Your task to perform on an android device: open app "Spotify" Image 0: 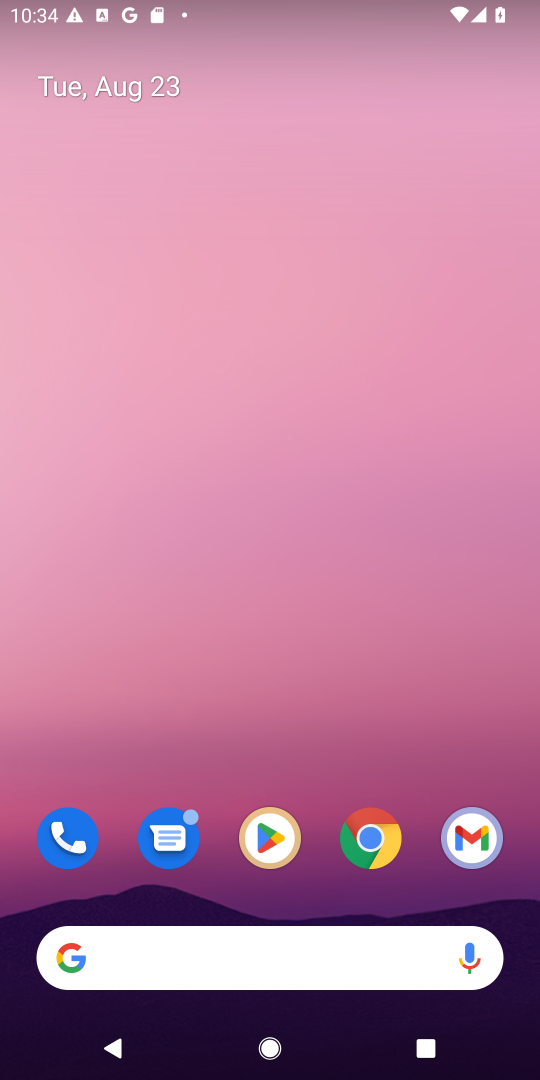
Step 0: click (279, 832)
Your task to perform on an android device: open app "Spotify" Image 1: 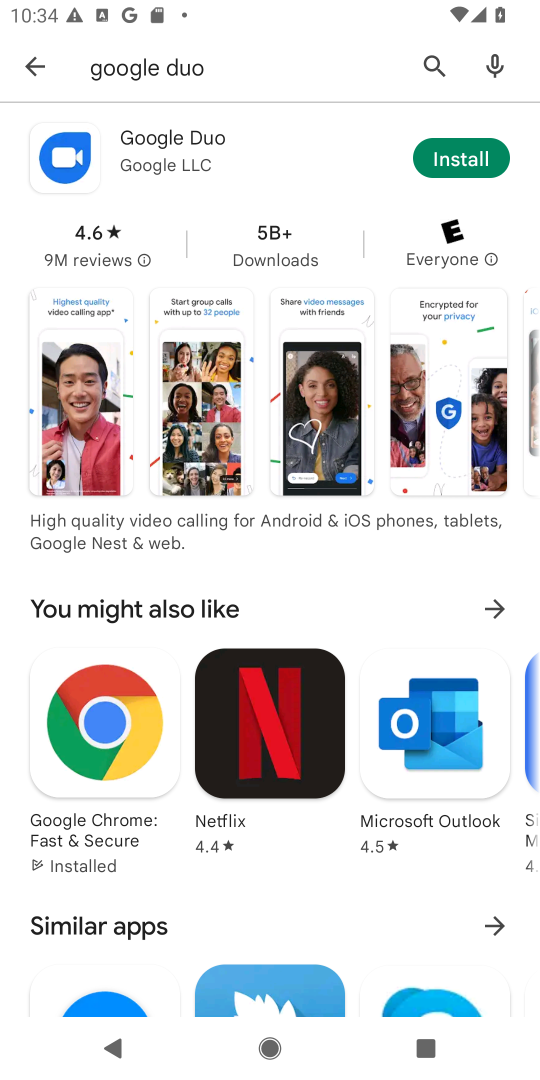
Step 1: click (431, 55)
Your task to perform on an android device: open app "Spotify" Image 2: 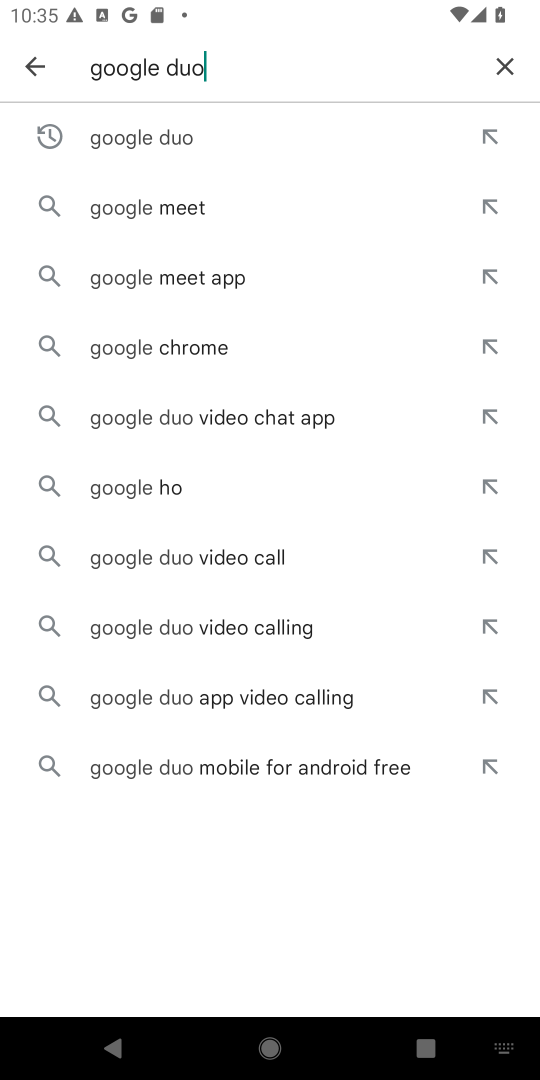
Step 2: click (506, 65)
Your task to perform on an android device: open app "Spotify" Image 3: 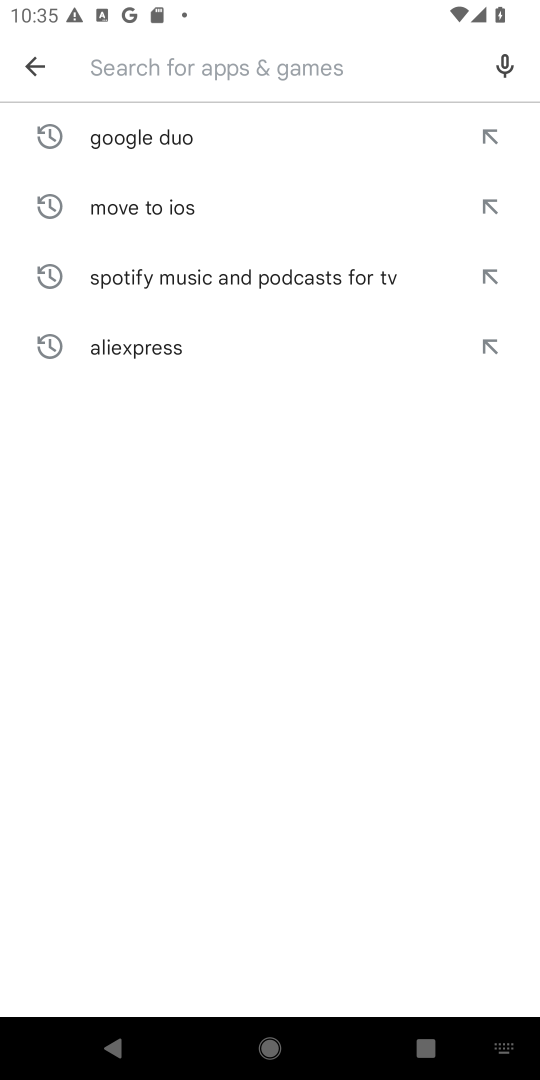
Step 3: type "Spotify"
Your task to perform on an android device: open app "Spotify" Image 4: 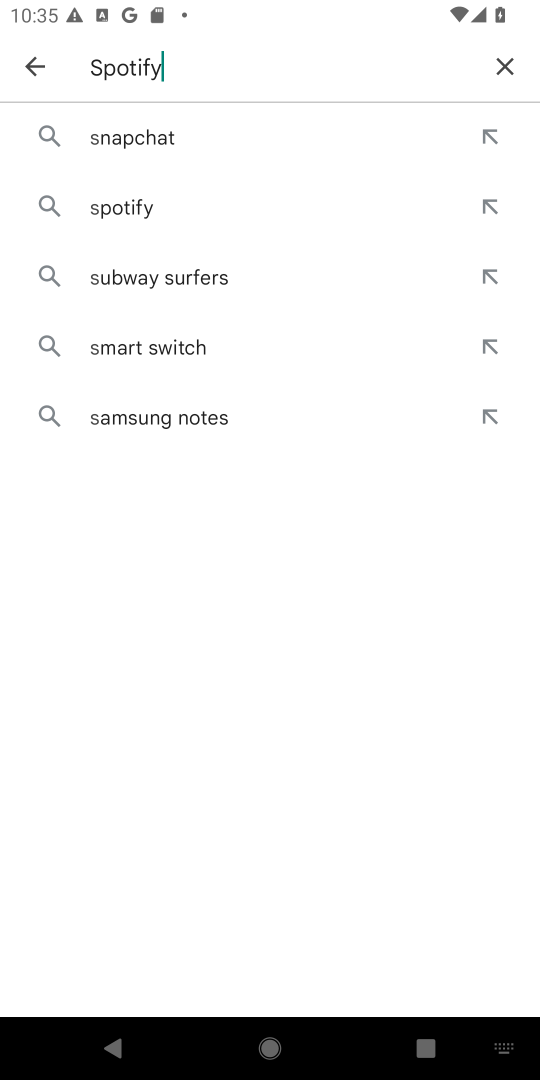
Step 4: type ""
Your task to perform on an android device: open app "Spotify" Image 5: 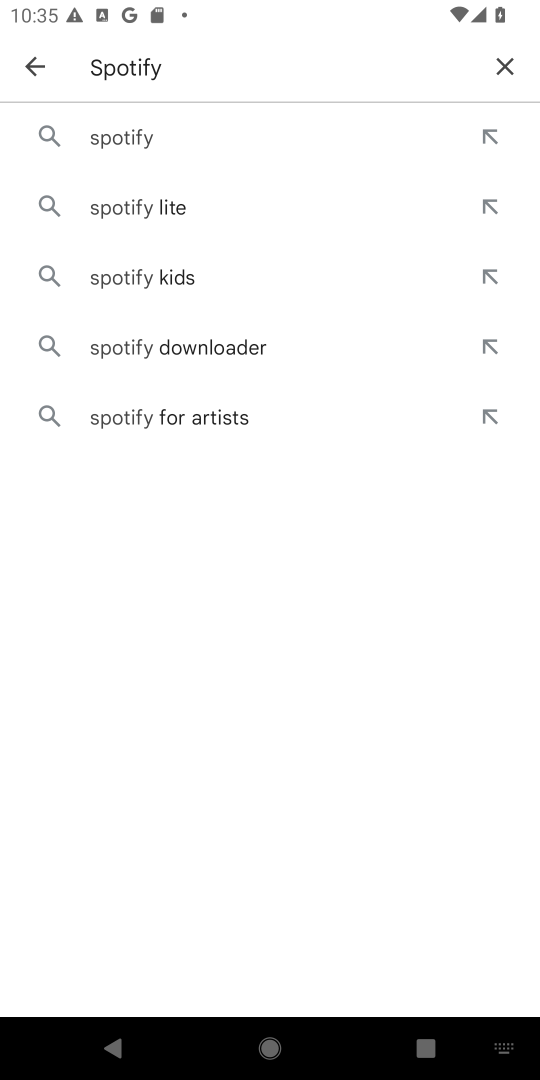
Step 5: click (126, 134)
Your task to perform on an android device: open app "Spotify" Image 6: 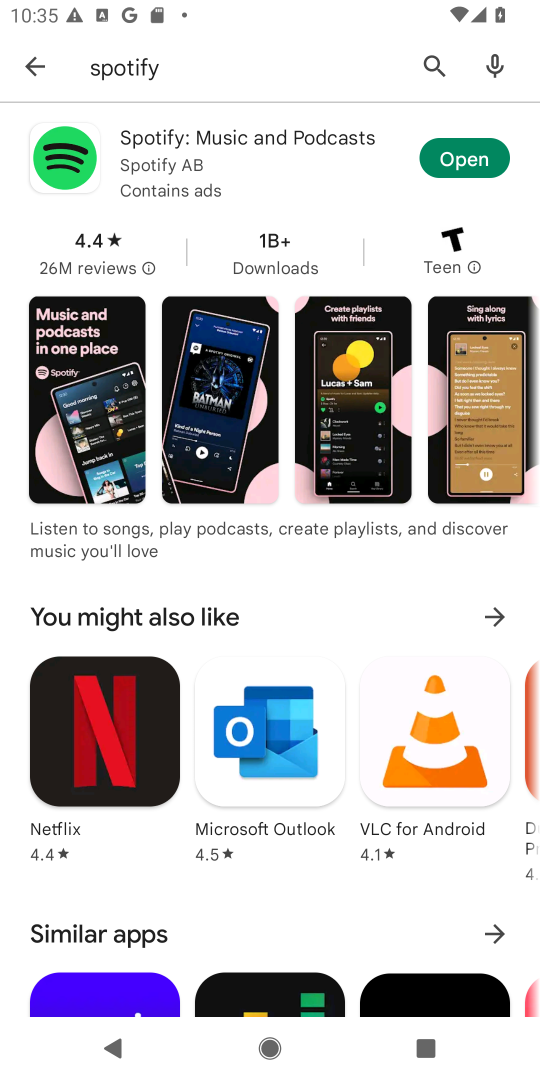
Step 6: click (475, 159)
Your task to perform on an android device: open app "Spotify" Image 7: 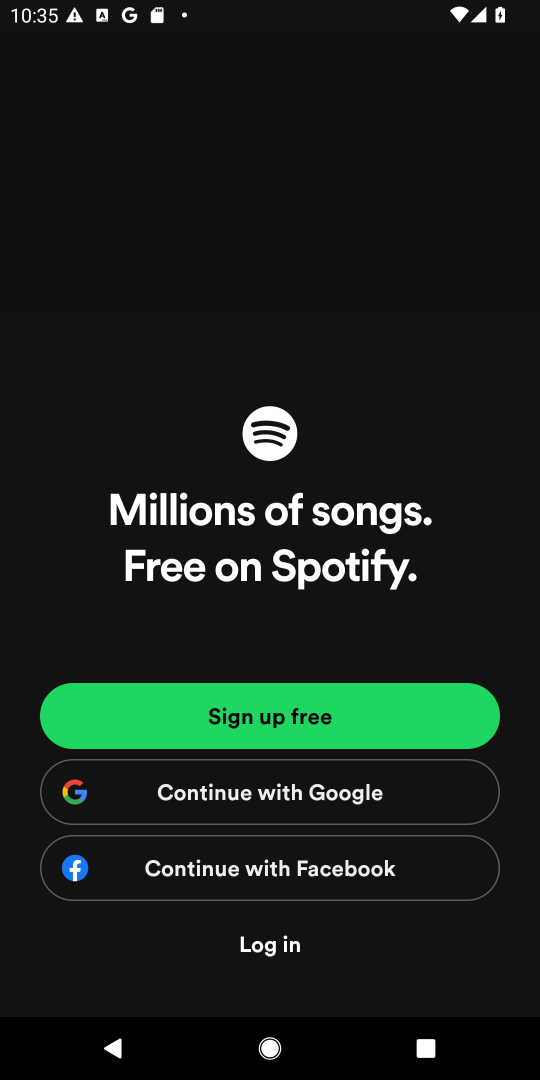
Step 7: task complete